Your task to perform on an android device: choose inbox layout in the gmail app Image 0: 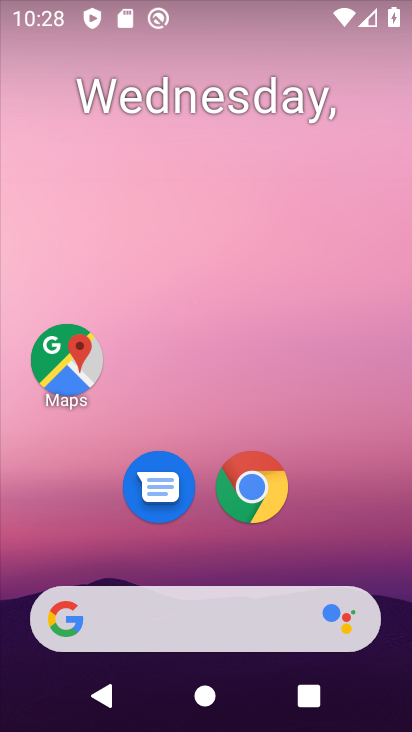
Step 0: drag from (207, 618) to (125, 178)
Your task to perform on an android device: choose inbox layout in the gmail app Image 1: 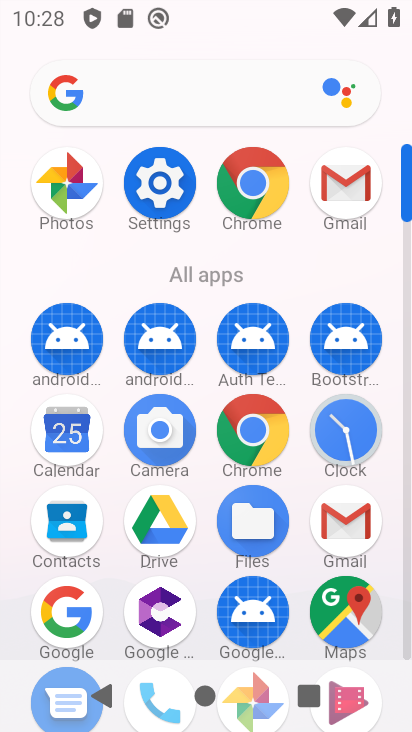
Step 1: click (340, 512)
Your task to perform on an android device: choose inbox layout in the gmail app Image 2: 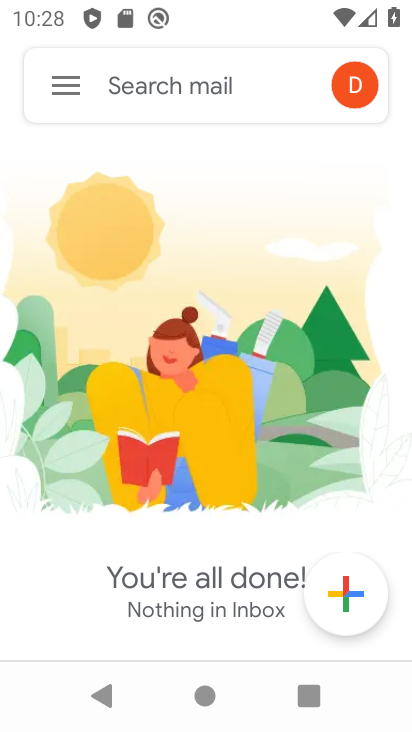
Step 2: click (45, 78)
Your task to perform on an android device: choose inbox layout in the gmail app Image 3: 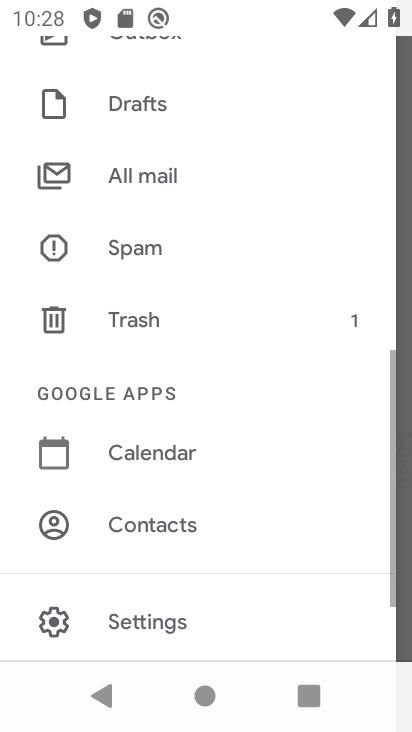
Step 3: drag from (172, 480) to (212, 210)
Your task to perform on an android device: choose inbox layout in the gmail app Image 4: 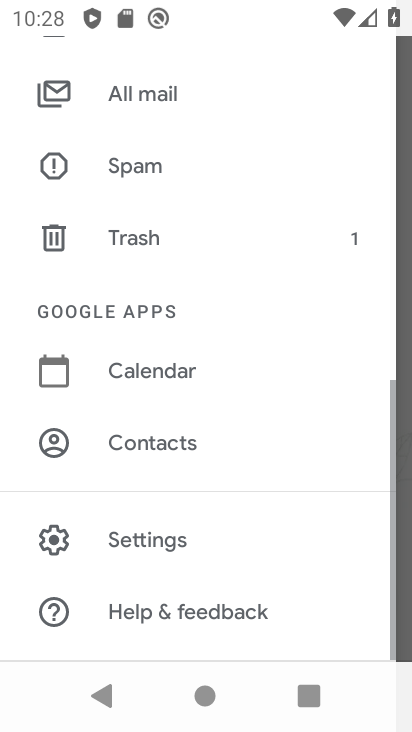
Step 4: click (188, 545)
Your task to perform on an android device: choose inbox layout in the gmail app Image 5: 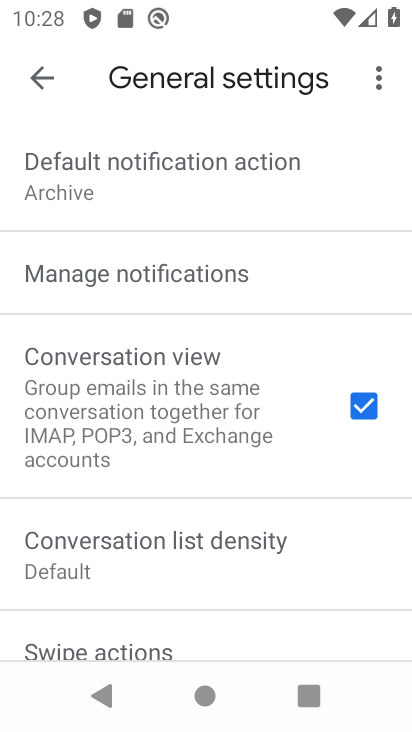
Step 5: drag from (86, 261) to (126, 621)
Your task to perform on an android device: choose inbox layout in the gmail app Image 6: 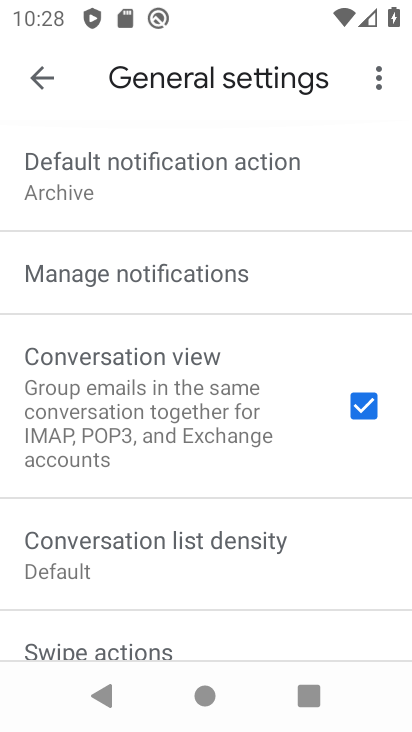
Step 6: drag from (233, 281) to (266, 668)
Your task to perform on an android device: choose inbox layout in the gmail app Image 7: 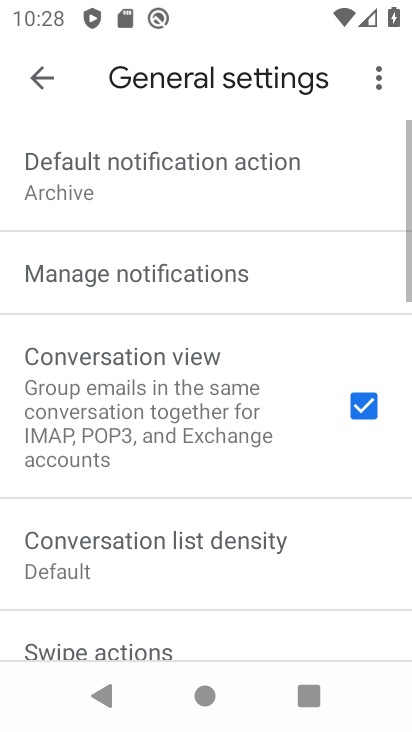
Step 7: drag from (255, 625) to (277, 182)
Your task to perform on an android device: choose inbox layout in the gmail app Image 8: 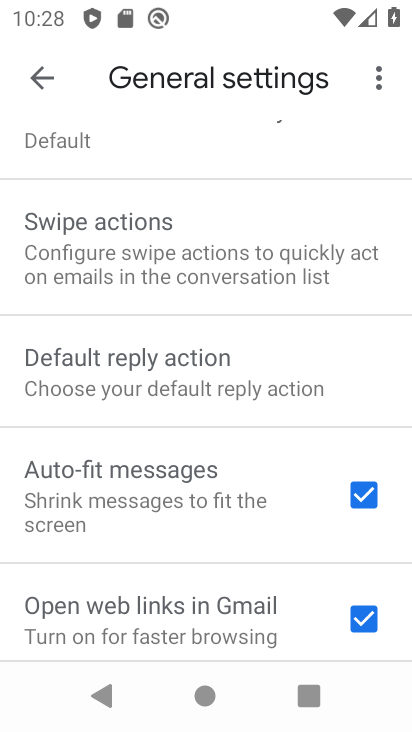
Step 8: press back button
Your task to perform on an android device: choose inbox layout in the gmail app Image 9: 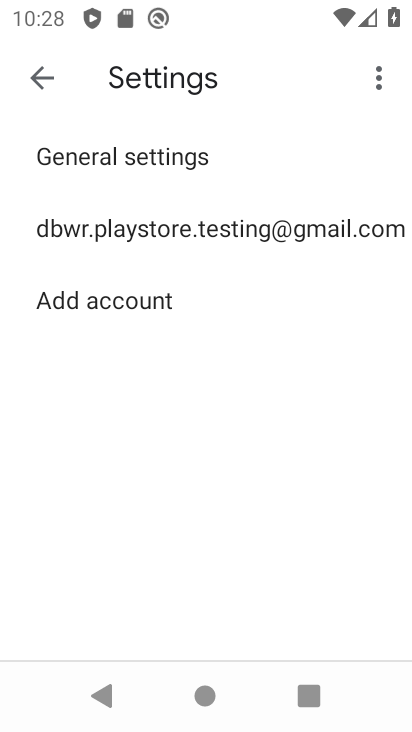
Step 9: click (299, 223)
Your task to perform on an android device: choose inbox layout in the gmail app Image 10: 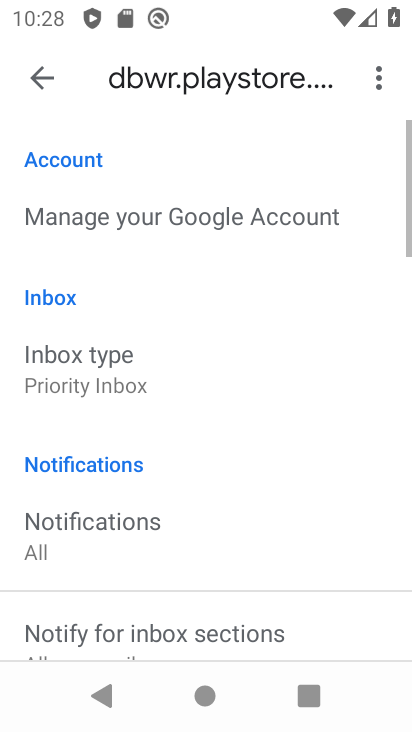
Step 10: click (164, 375)
Your task to perform on an android device: choose inbox layout in the gmail app Image 11: 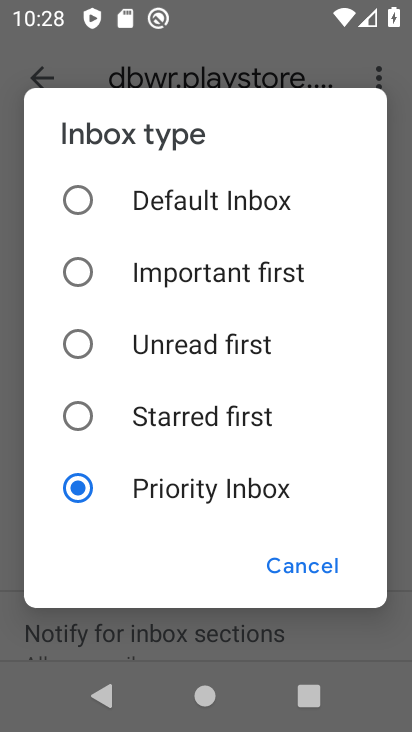
Step 11: task complete